Your task to perform on an android device: Go to Google maps Image 0: 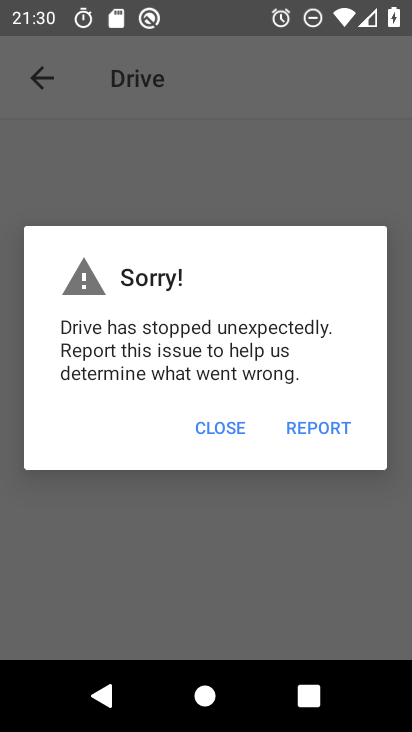
Step 0: press home button
Your task to perform on an android device: Go to Google maps Image 1: 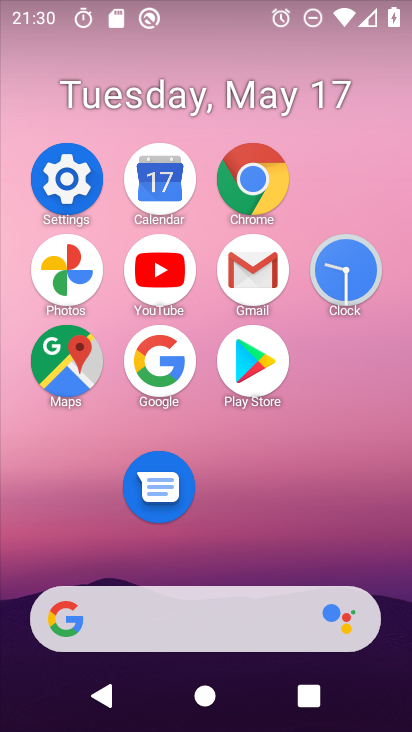
Step 1: click (59, 346)
Your task to perform on an android device: Go to Google maps Image 2: 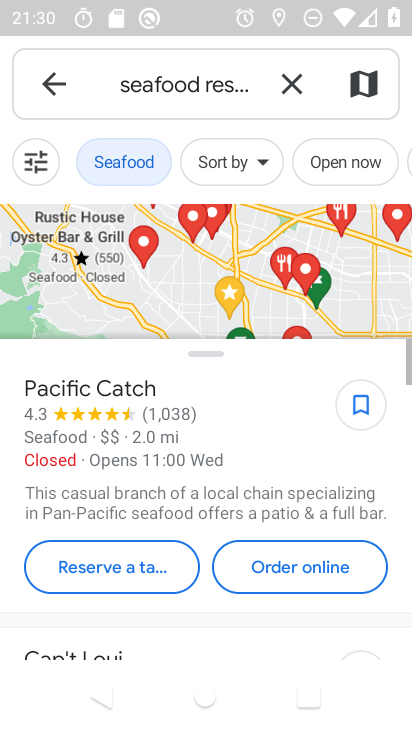
Step 2: task complete